Your task to perform on an android device: Open Youtube and go to the subscriptions tab Image 0: 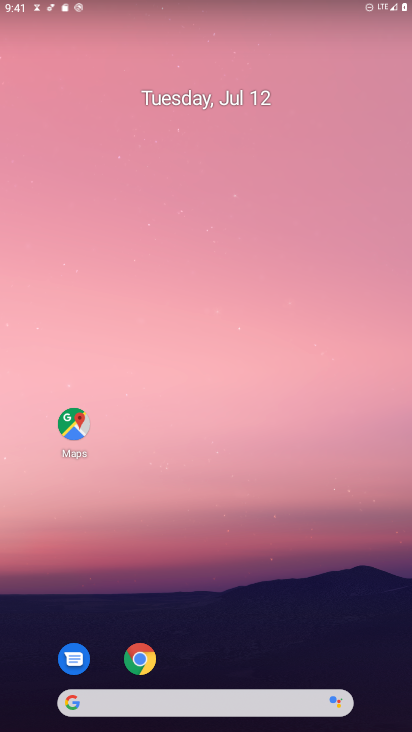
Step 0: drag from (232, 699) to (261, 247)
Your task to perform on an android device: Open Youtube and go to the subscriptions tab Image 1: 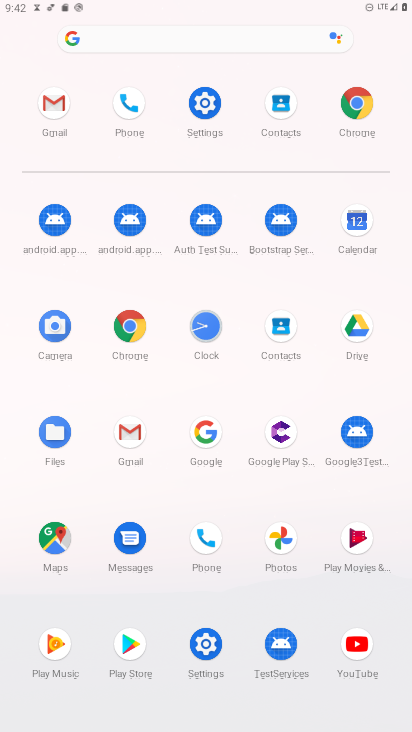
Step 1: click (356, 642)
Your task to perform on an android device: Open Youtube and go to the subscriptions tab Image 2: 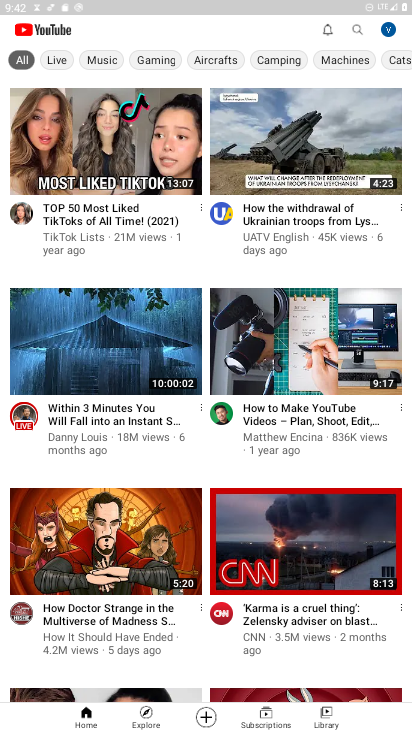
Step 2: click (268, 715)
Your task to perform on an android device: Open Youtube and go to the subscriptions tab Image 3: 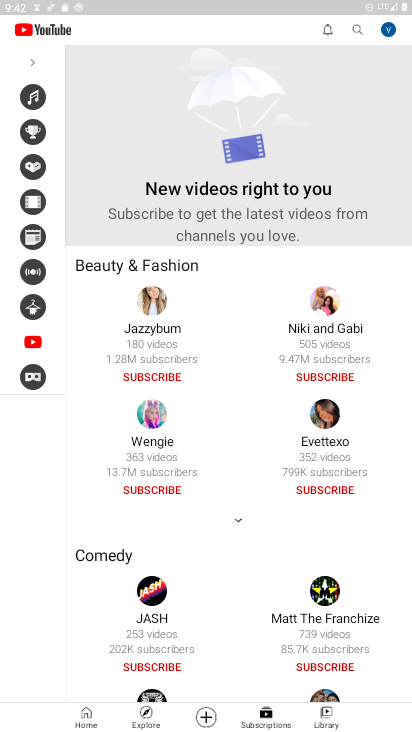
Step 3: task complete